Your task to perform on an android device: toggle translation in the chrome app Image 0: 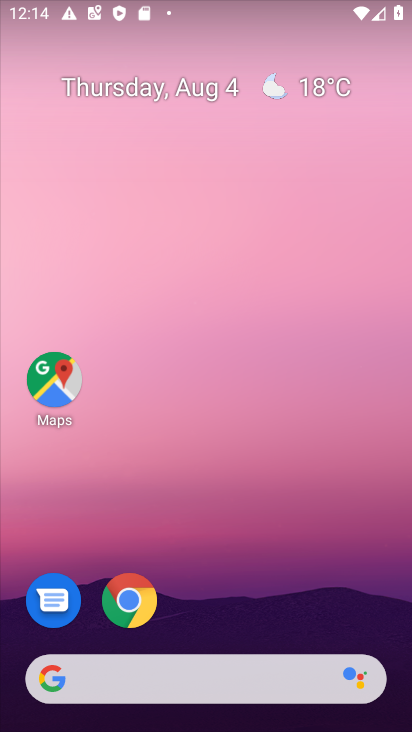
Step 0: click (130, 600)
Your task to perform on an android device: toggle translation in the chrome app Image 1: 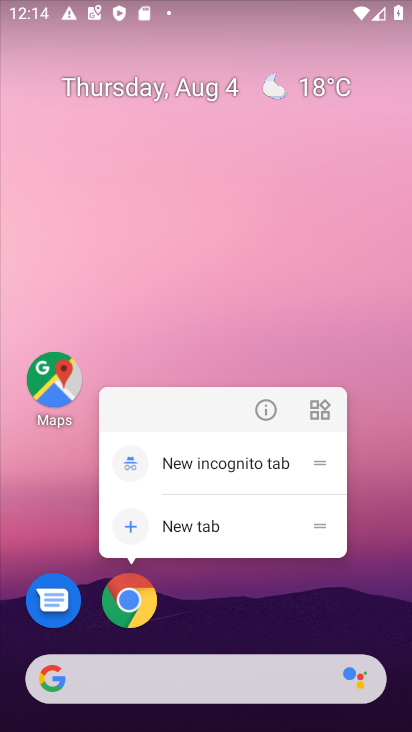
Step 1: click (130, 599)
Your task to perform on an android device: toggle translation in the chrome app Image 2: 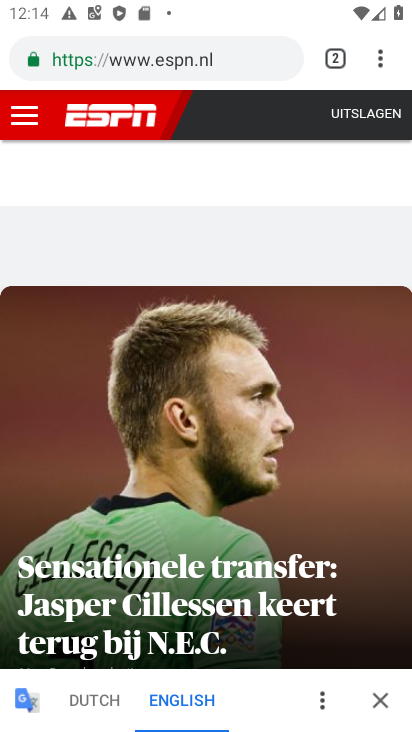
Step 2: drag from (378, 61) to (247, 633)
Your task to perform on an android device: toggle translation in the chrome app Image 3: 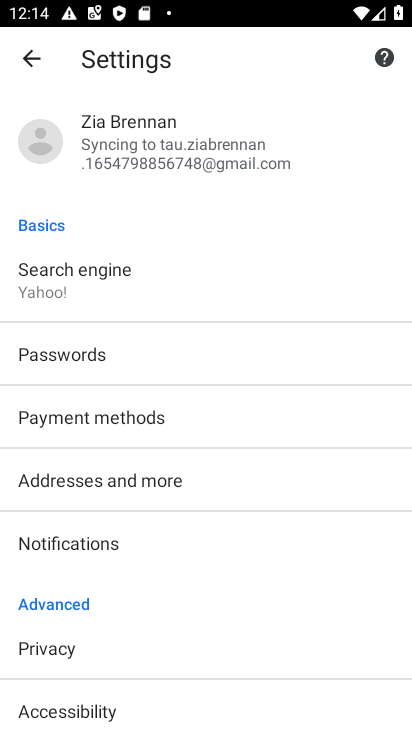
Step 3: drag from (205, 678) to (359, 197)
Your task to perform on an android device: toggle translation in the chrome app Image 4: 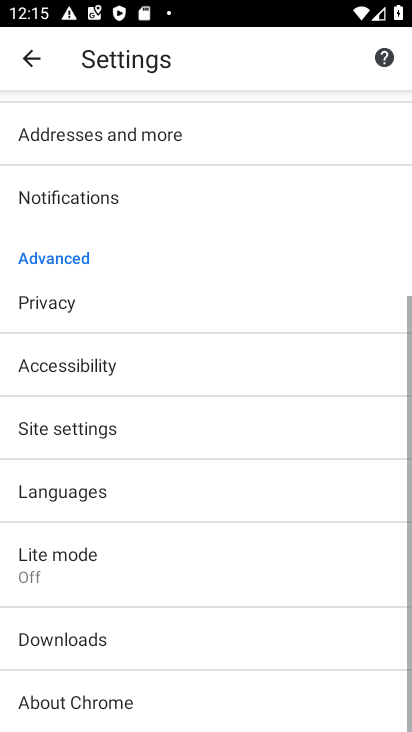
Step 4: click (94, 492)
Your task to perform on an android device: toggle translation in the chrome app Image 5: 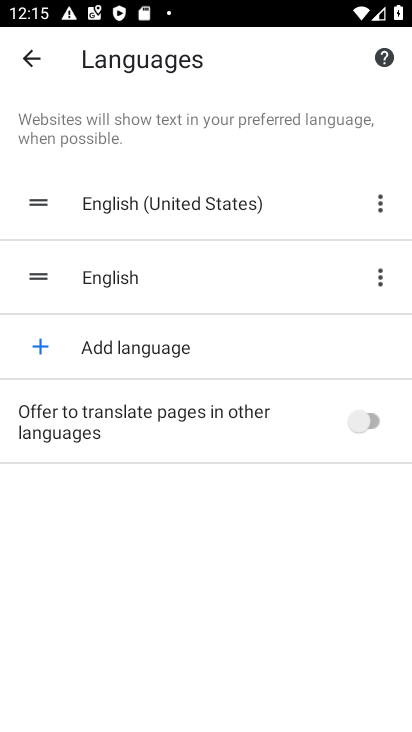
Step 5: click (373, 415)
Your task to perform on an android device: toggle translation in the chrome app Image 6: 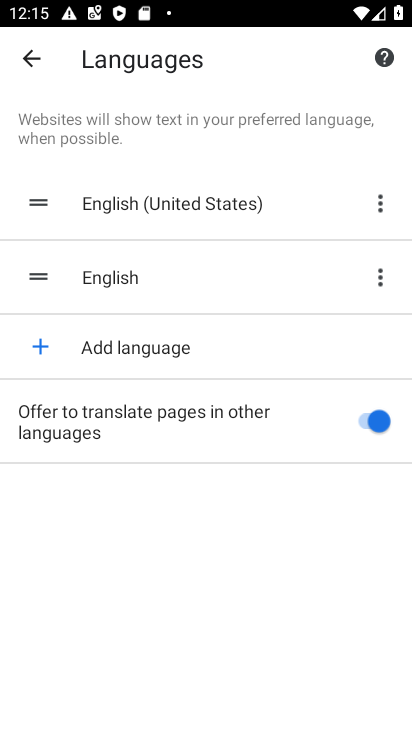
Step 6: task complete